Your task to perform on an android device: check storage Image 0: 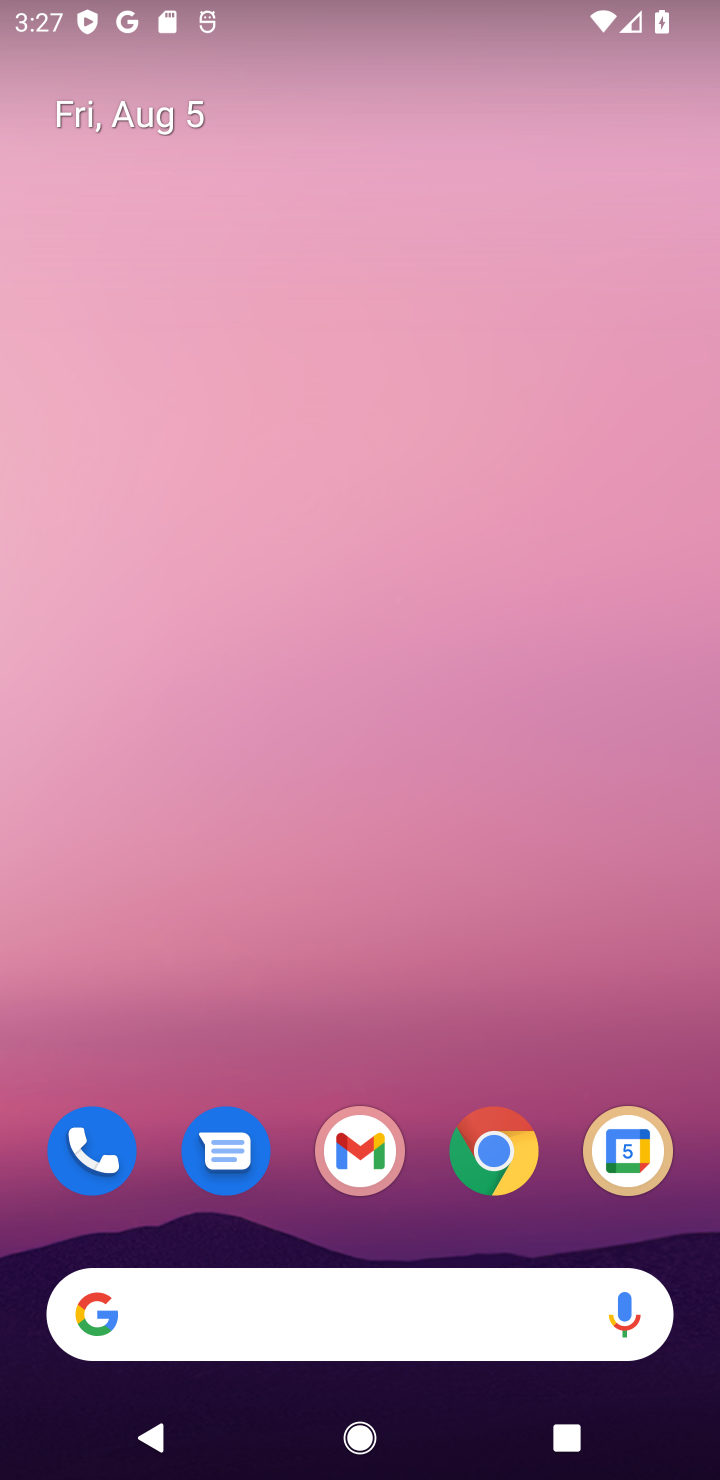
Step 0: drag from (405, 1071) to (393, 538)
Your task to perform on an android device: check storage Image 1: 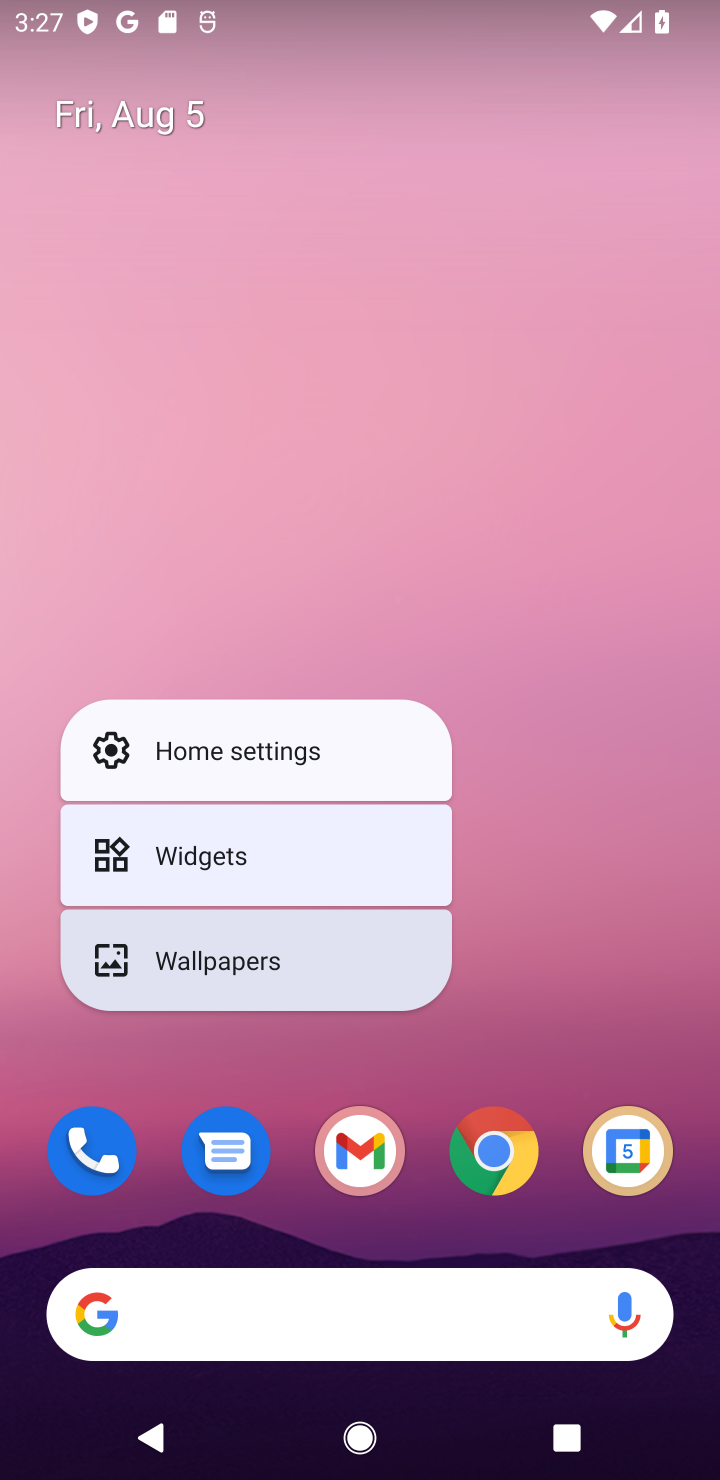
Step 1: click (393, 538)
Your task to perform on an android device: check storage Image 2: 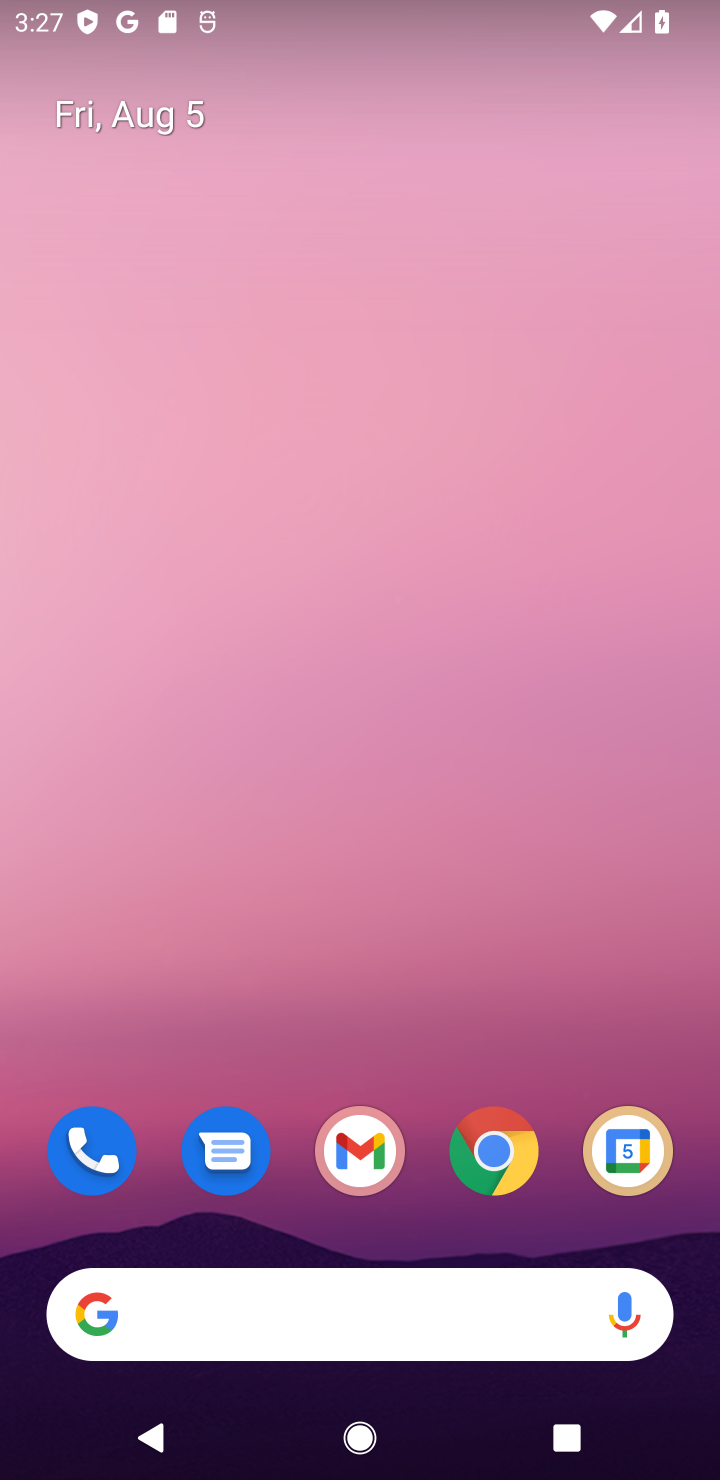
Step 2: drag from (441, 1095) to (441, 370)
Your task to perform on an android device: check storage Image 3: 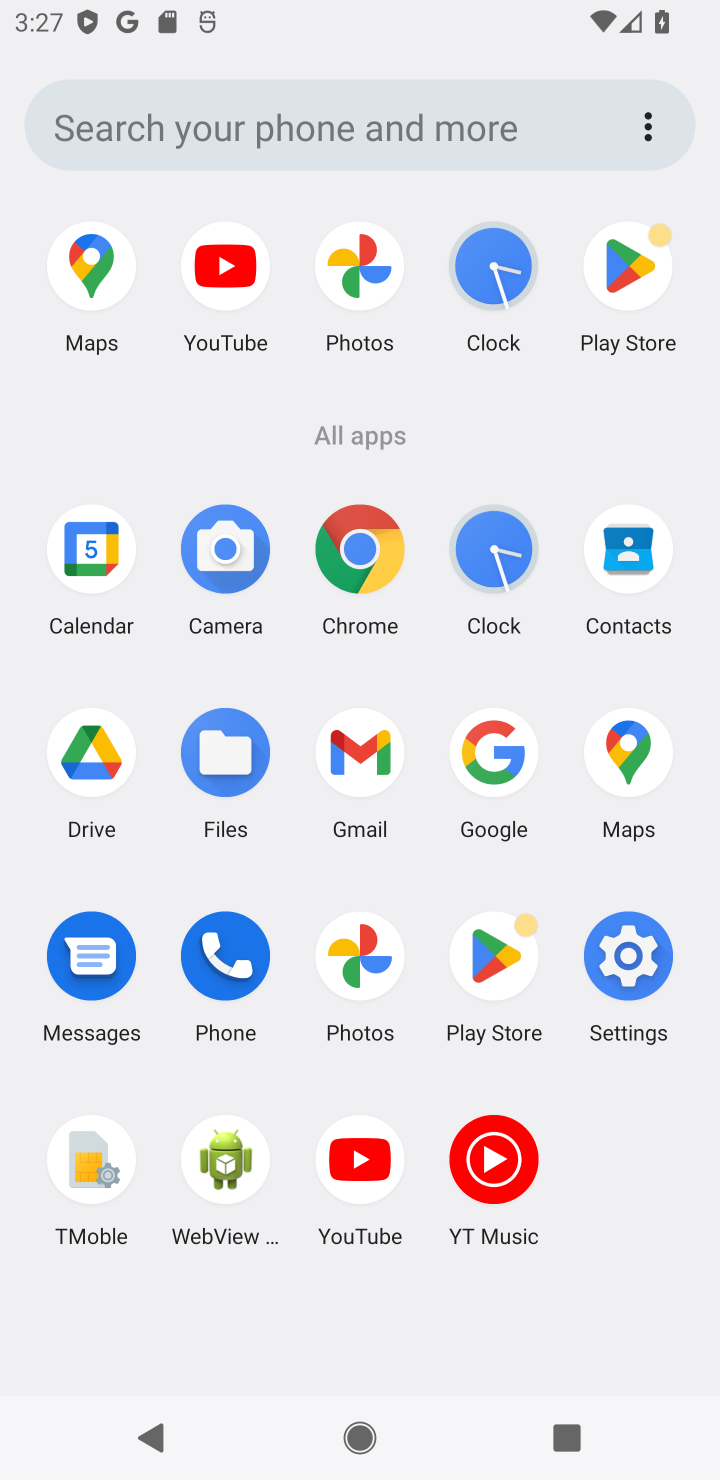
Step 3: click (628, 953)
Your task to perform on an android device: check storage Image 4: 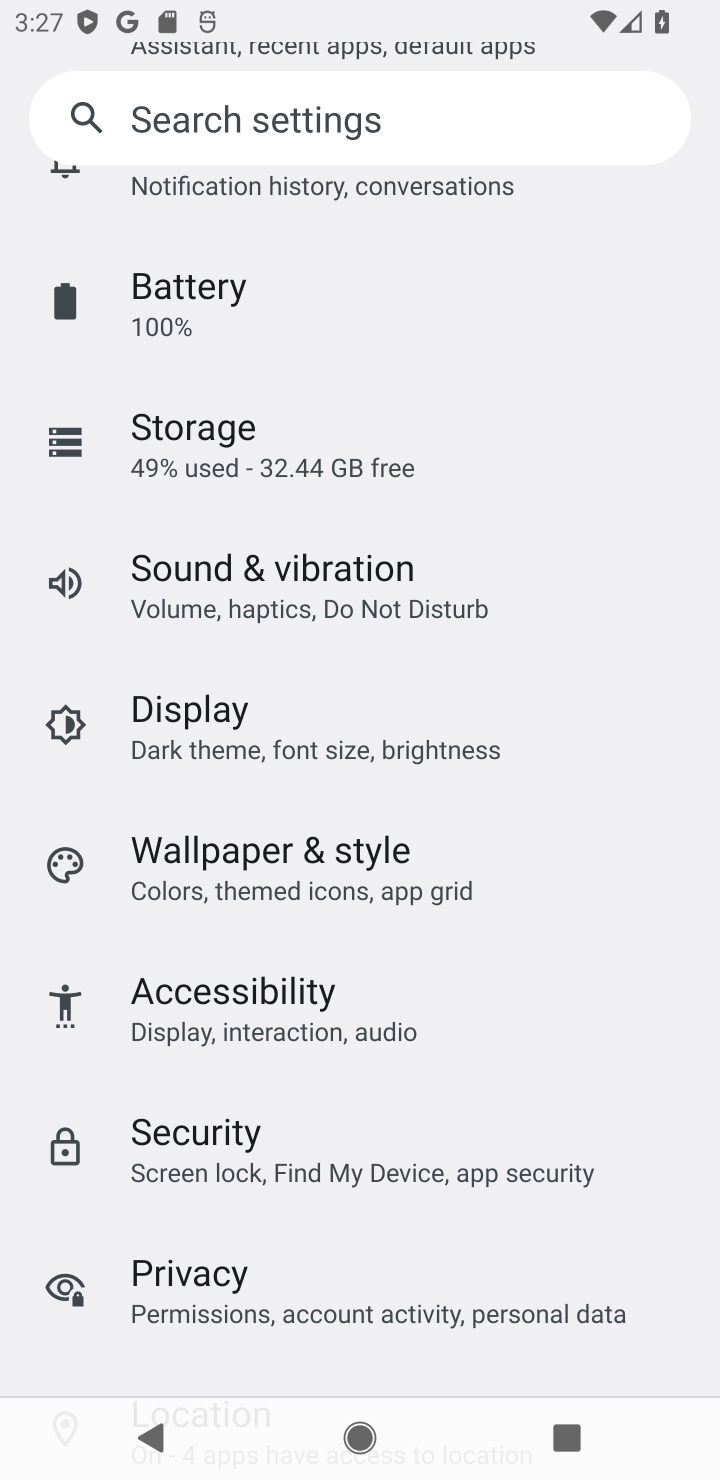
Step 4: click (377, 452)
Your task to perform on an android device: check storage Image 5: 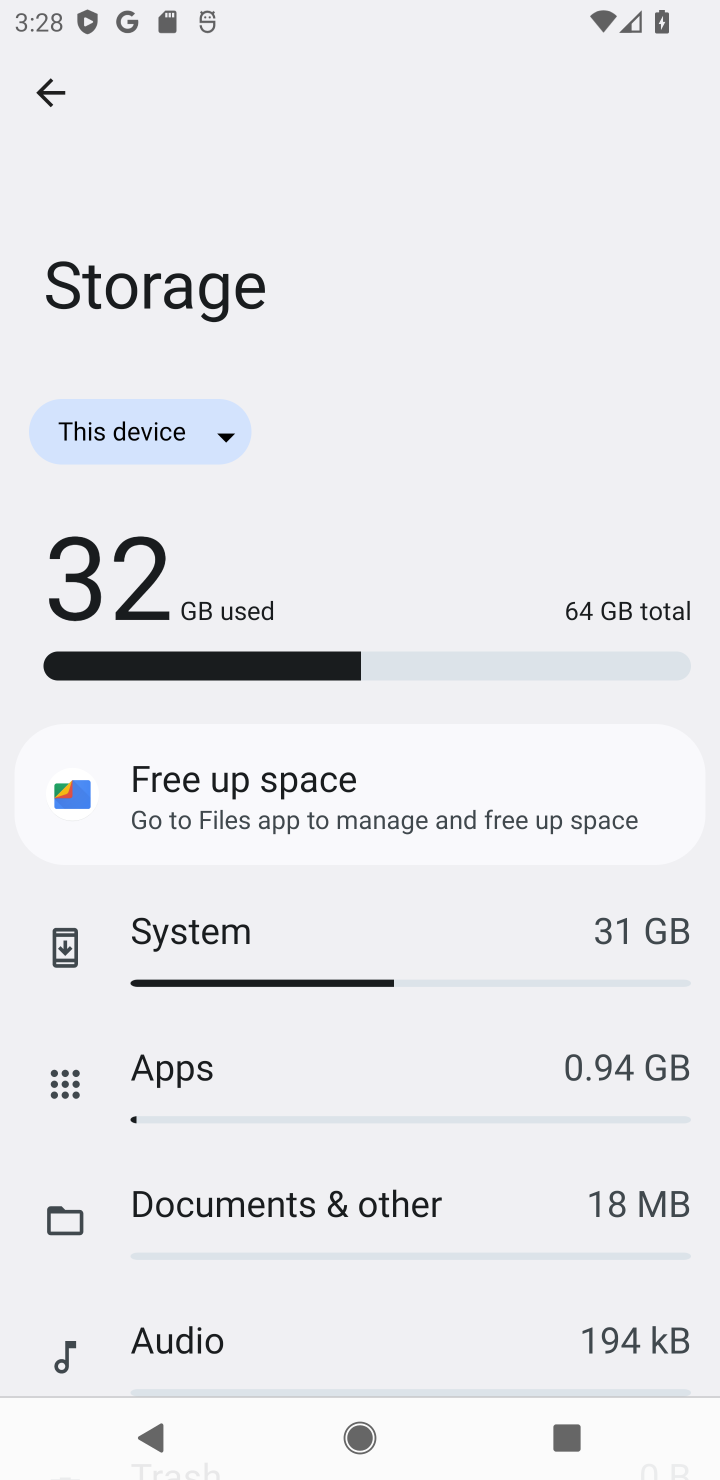
Step 5: task complete